Your task to perform on an android device: Turn on the flashlight Image 0: 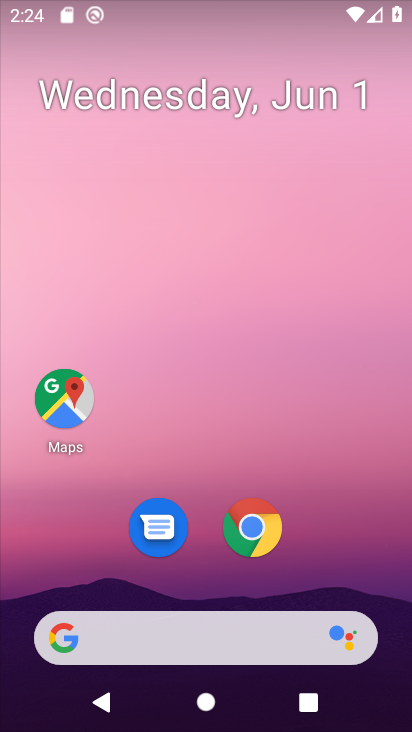
Step 0: drag from (204, 543) to (250, 252)
Your task to perform on an android device: Turn on the flashlight Image 1: 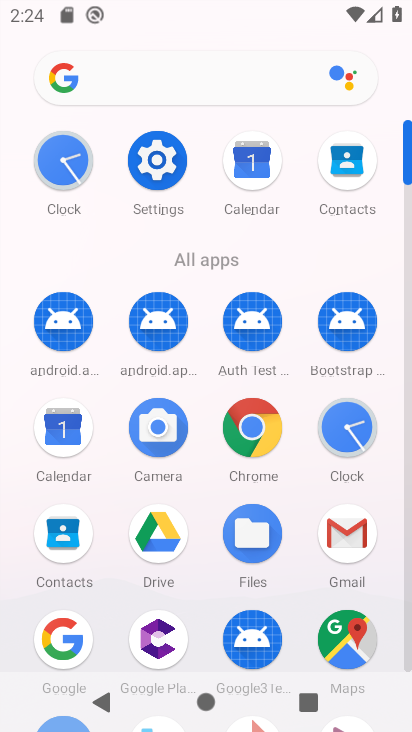
Step 1: click (158, 159)
Your task to perform on an android device: Turn on the flashlight Image 2: 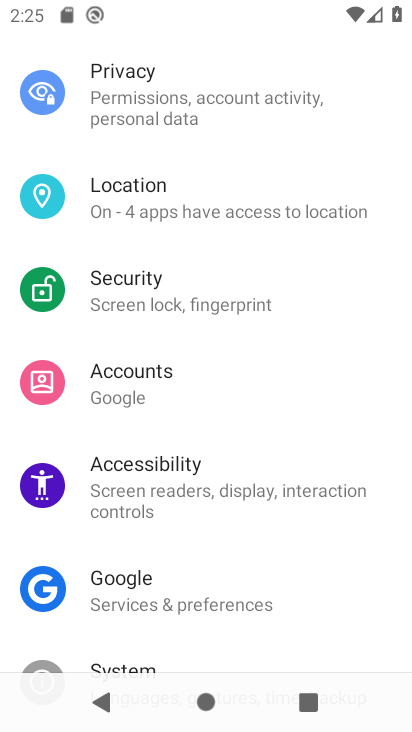
Step 2: drag from (240, 192) to (240, 727)
Your task to perform on an android device: Turn on the flashlight Image 3: 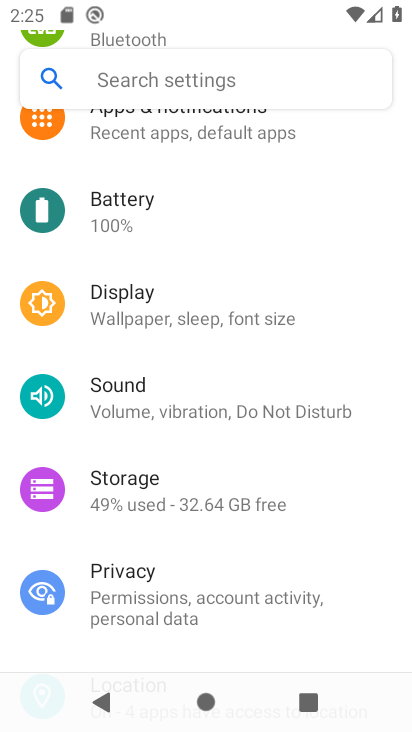
Step 3: click (192, 79)
Your task to perform on an android device: Turn on the flashlight Image 4: 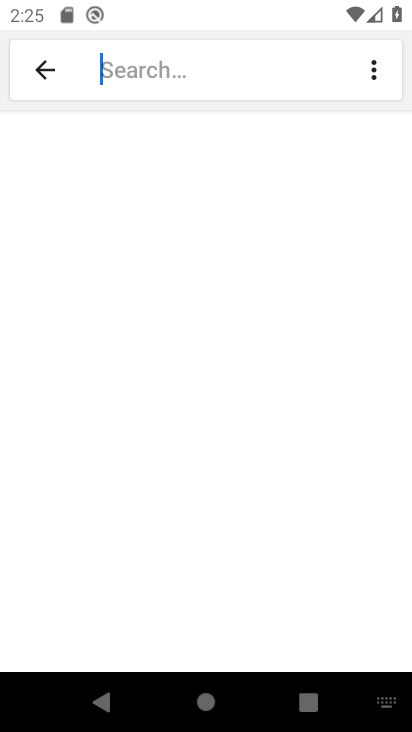
Step 4: click (191, 81)
Your task to perform on an android device: Turn on the flashlight Image 5: 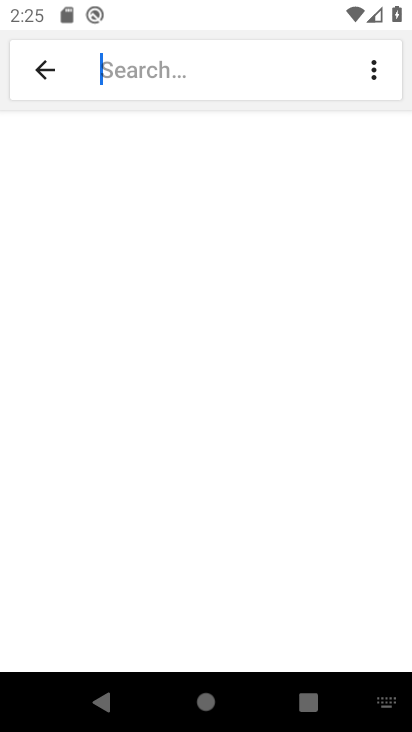
Step 5: type "flashlight"
Your task to perform on an android device: Turn on the flashlight Image 6: 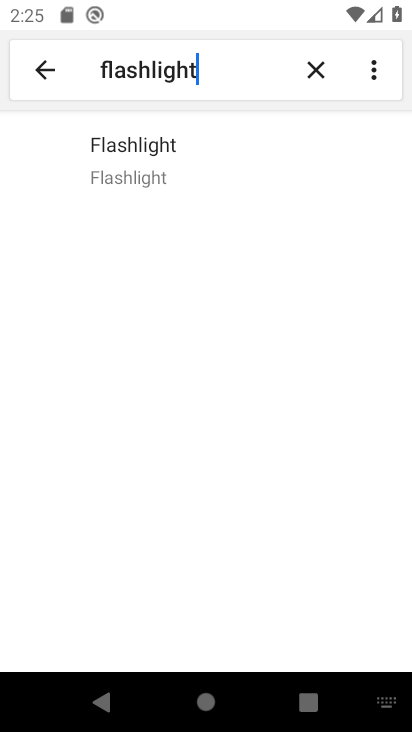
Step 6: click (235, 130)
Your task to perform on an android device: Turn on the flashlight Image 7: 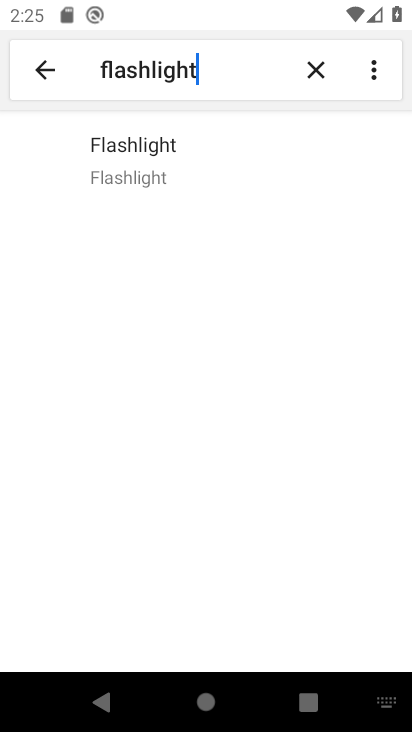
Step 7: task complete